Your task to perform on an android device: Search for "jbl flip 4" on ebay.com, select the first entry, add it to the cart, then select checkout. Image 0: 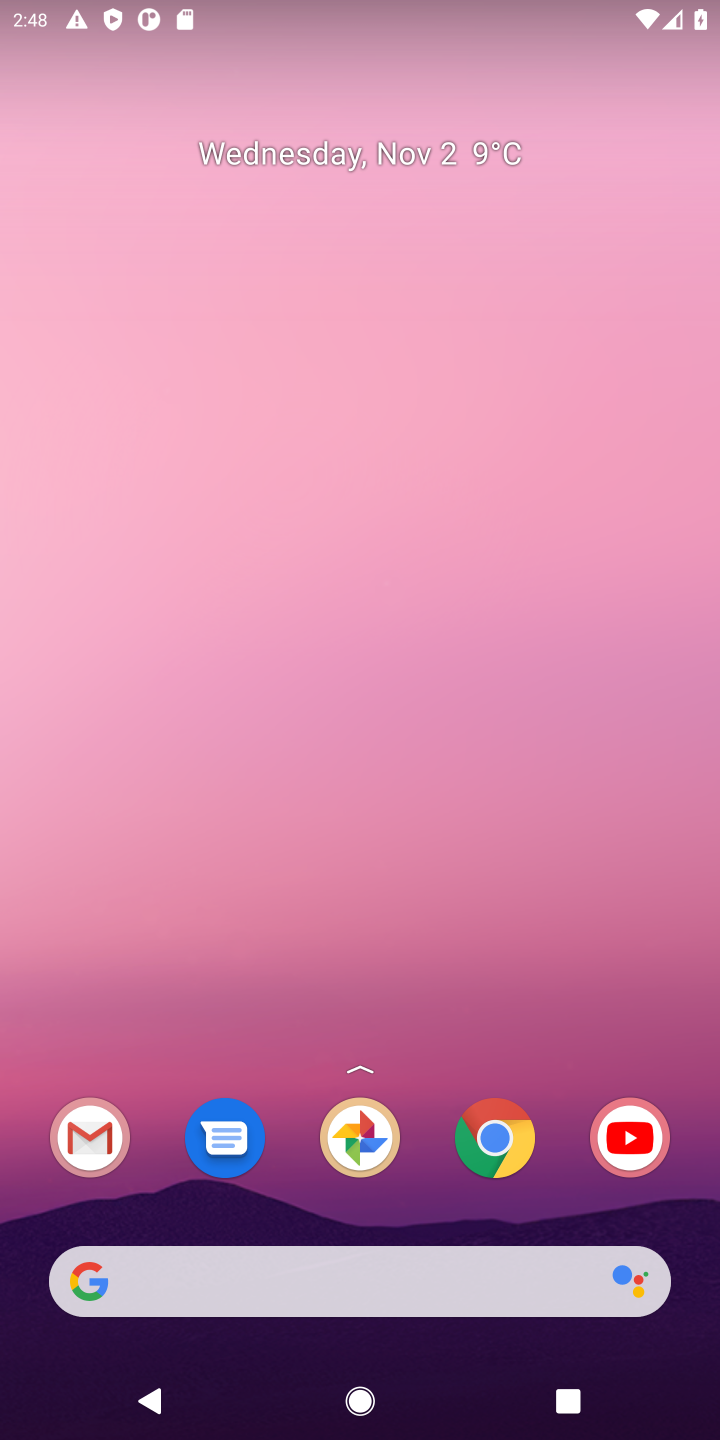
Step 0: click (499, 1111)
Your task to perform on an android device: Search for "jbl flip 4" on ebay.com, select the first entry, add it to the cart, then select checkout. Image 1: 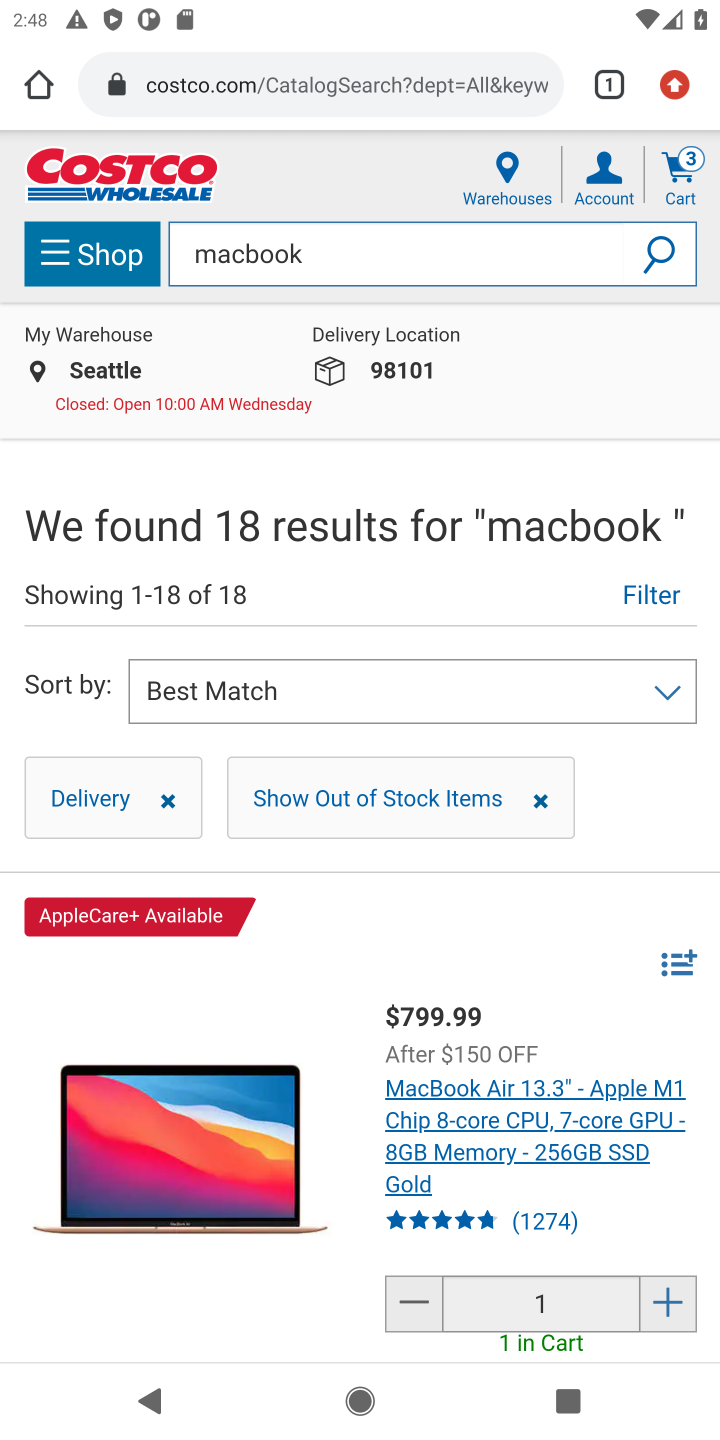
Step 1: click (215, 74)
Your task to perform on an android device: Search for "jbl flip 4" on ebay.com, select the first entry, add it to the cart, then select checkout. Image 2: 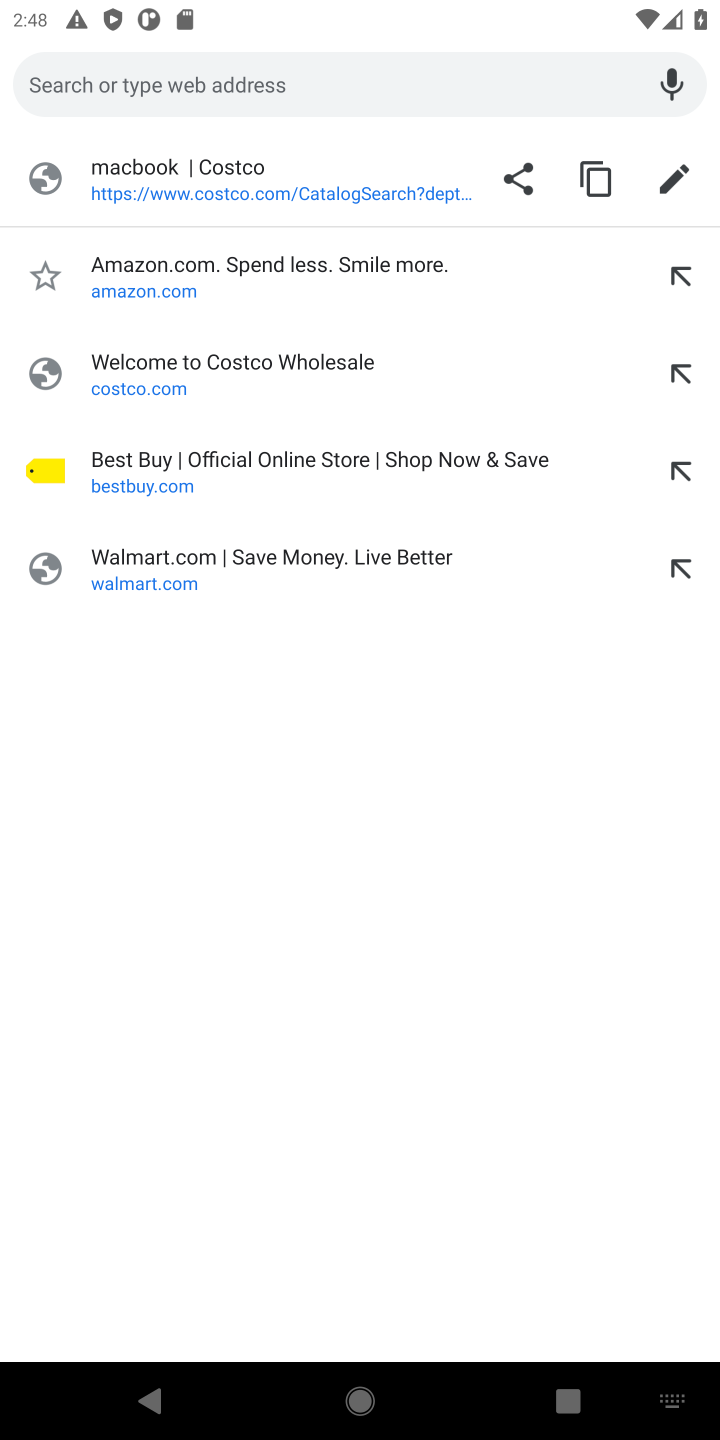
Step 2: type "ebay"
Your task to perform on an android device: Search for "jbl flip 4" on ebay.com, select the first entry, add it to the cart, then select checkout. Image 3: 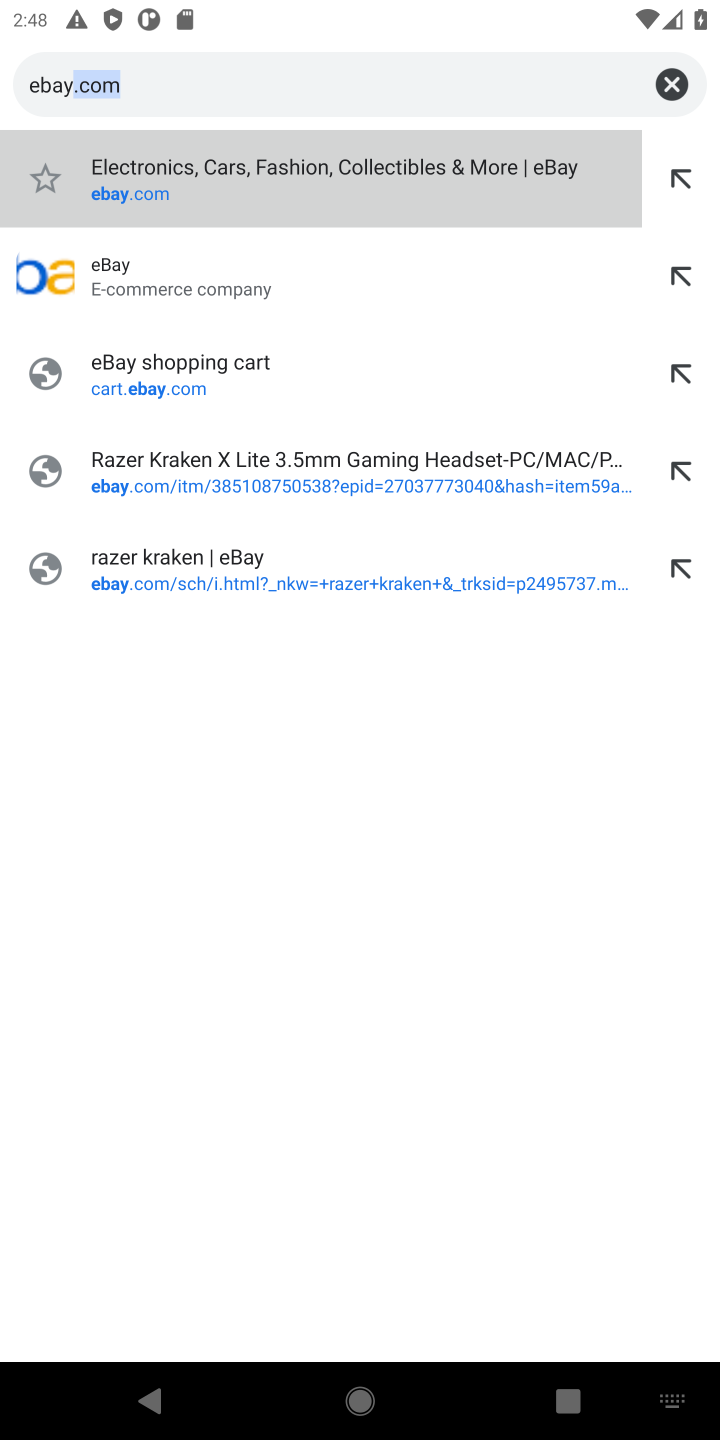
Step 3: click (284, 260)
Your task to perform on an android device: Search for "jbl flip 4" on ebay.com, select the first entry, add it to the cart, then select checkout. Image 4: 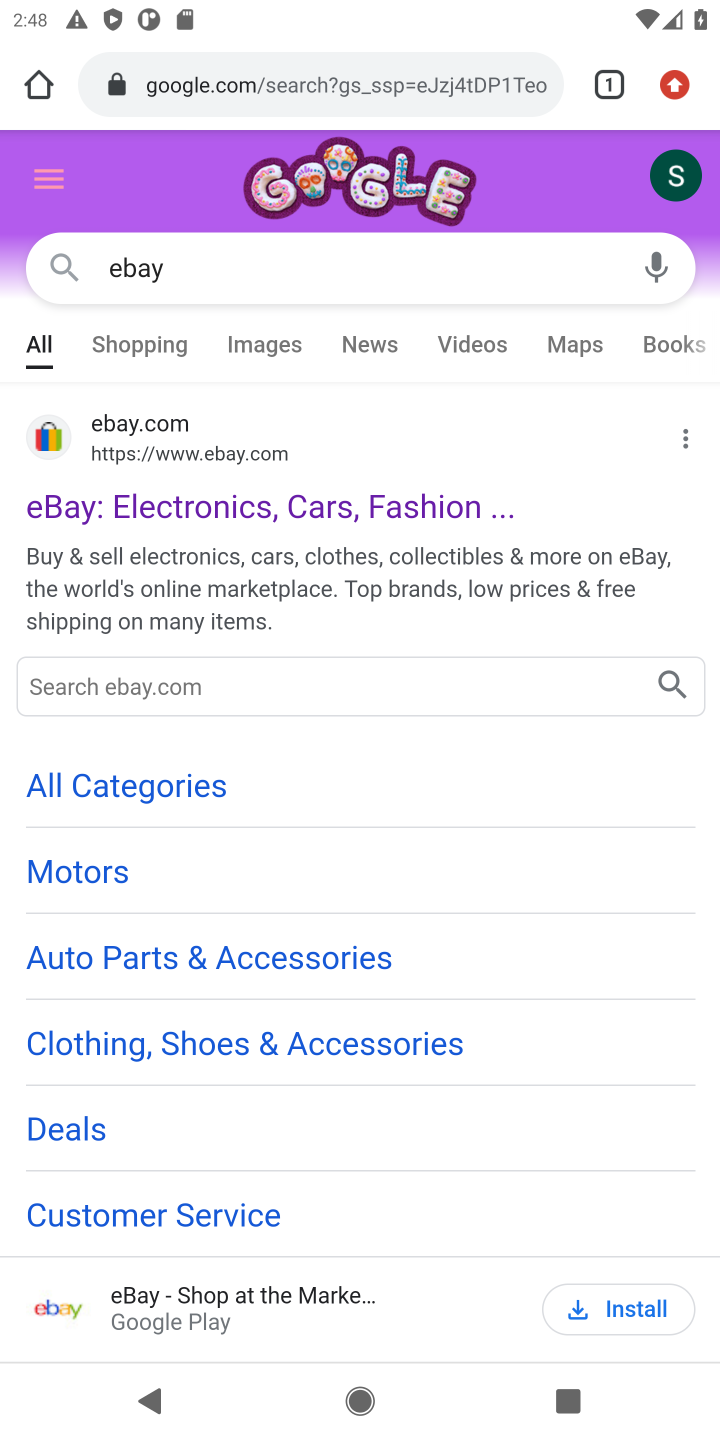
Step 4: click (101, 501)
Your task to perform on an android device: Search for "jbl flip 4" on ebay.com, select the first entry, add it to the cart, then select checkout. Image 5: 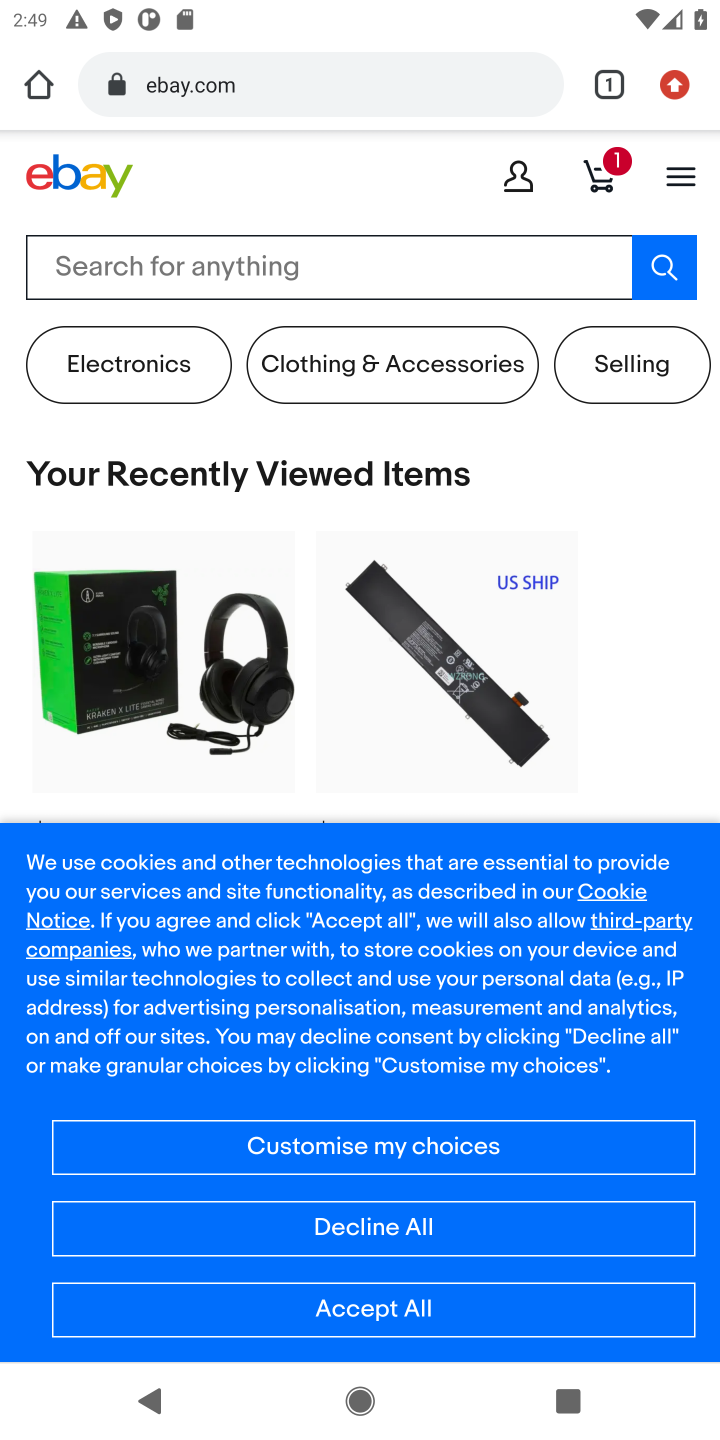
Step 5: click (395, 270)
Your task to perform on an android device: Search for "jbl flip 4" on ebay.com, select the first entry, add it to the cart, then select checkout. Image 6: 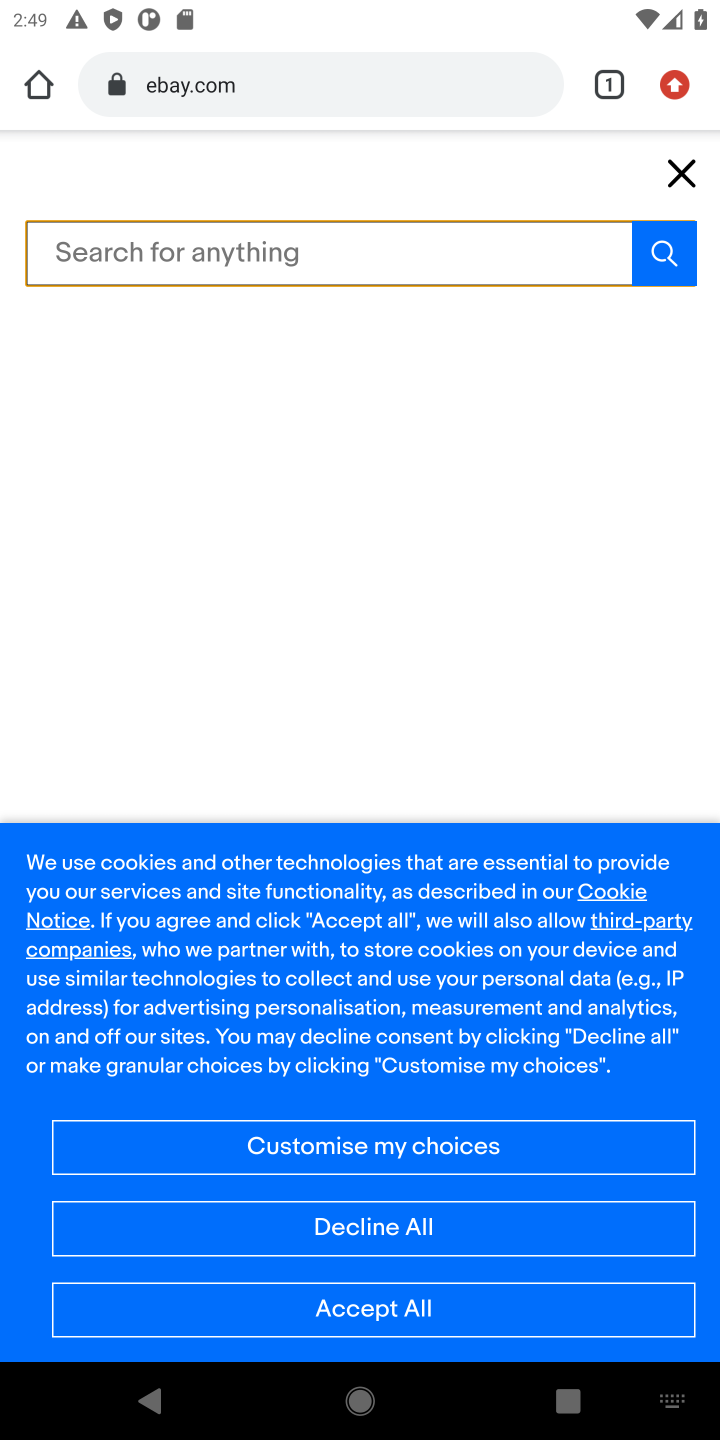
Step 6: type "jbl flip 4"
Your task to perform on an android device: Search for "jbl flip 4" on ebay.com, select the first entry, add it to the cart, then select checkout. Image 7: 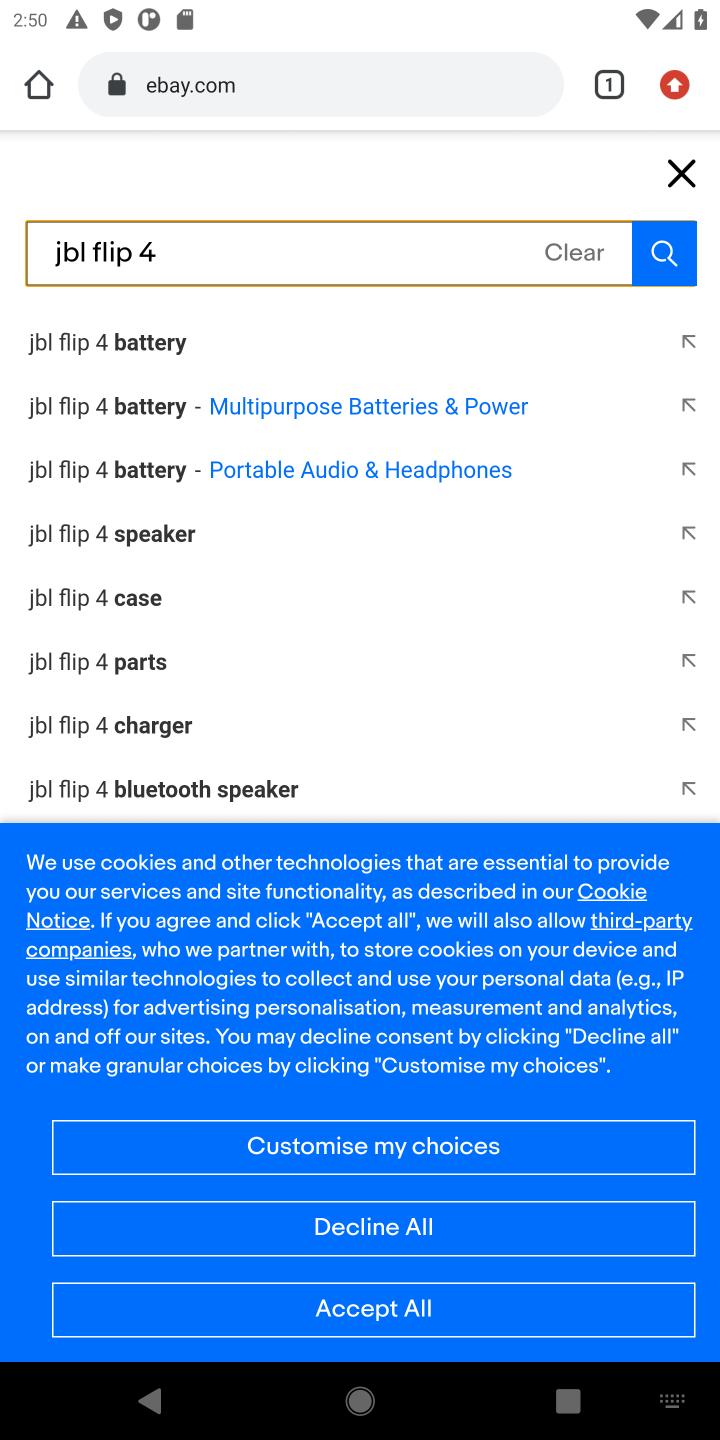
Step 7: click (645, 247)
Your task to perform on an android device: Search for "jbl flip 4" on ebay.com, select the first entry, add it to the cart, then select checkout. Image 8: 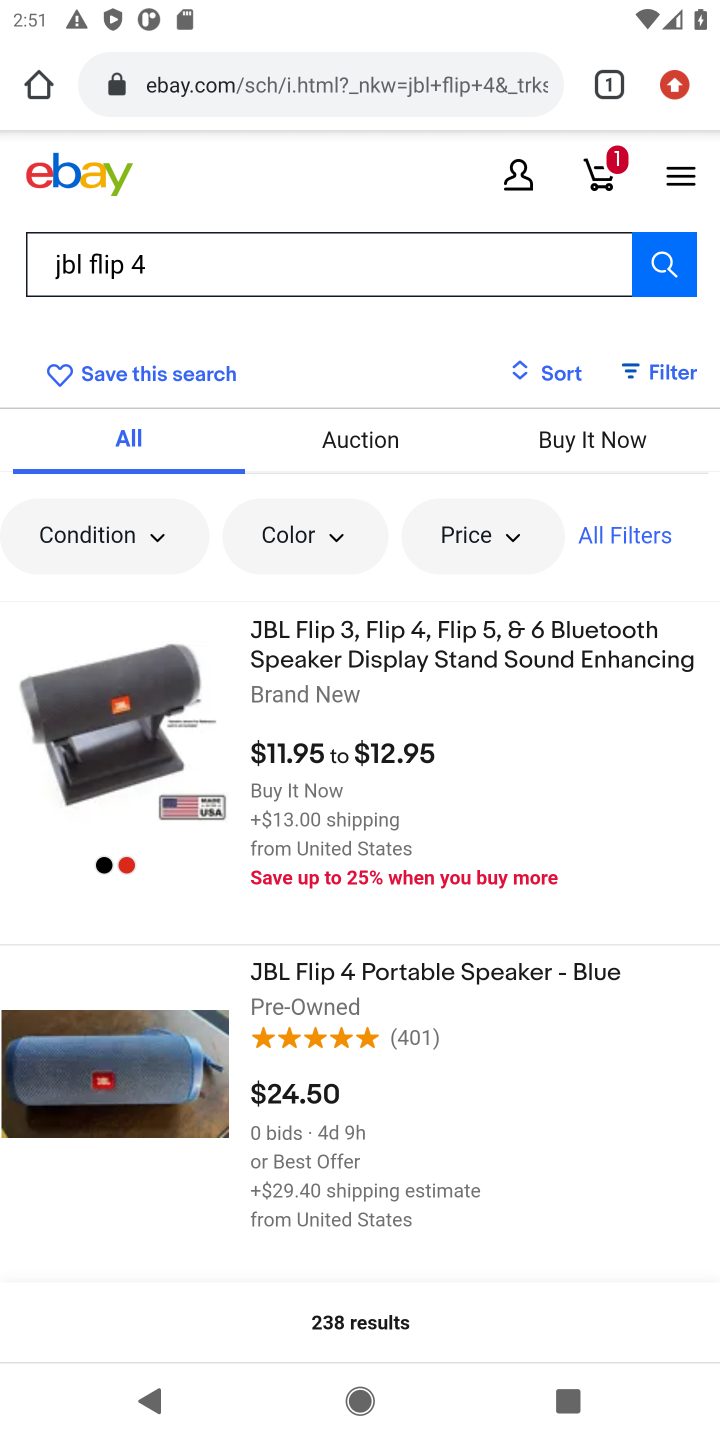
Step 8: click (680, 280)
Your task to perform on an android device: Search for "jbl flip 4" on ebay.com, select the first entry, add it to the cart, then select checkout. Image 9: 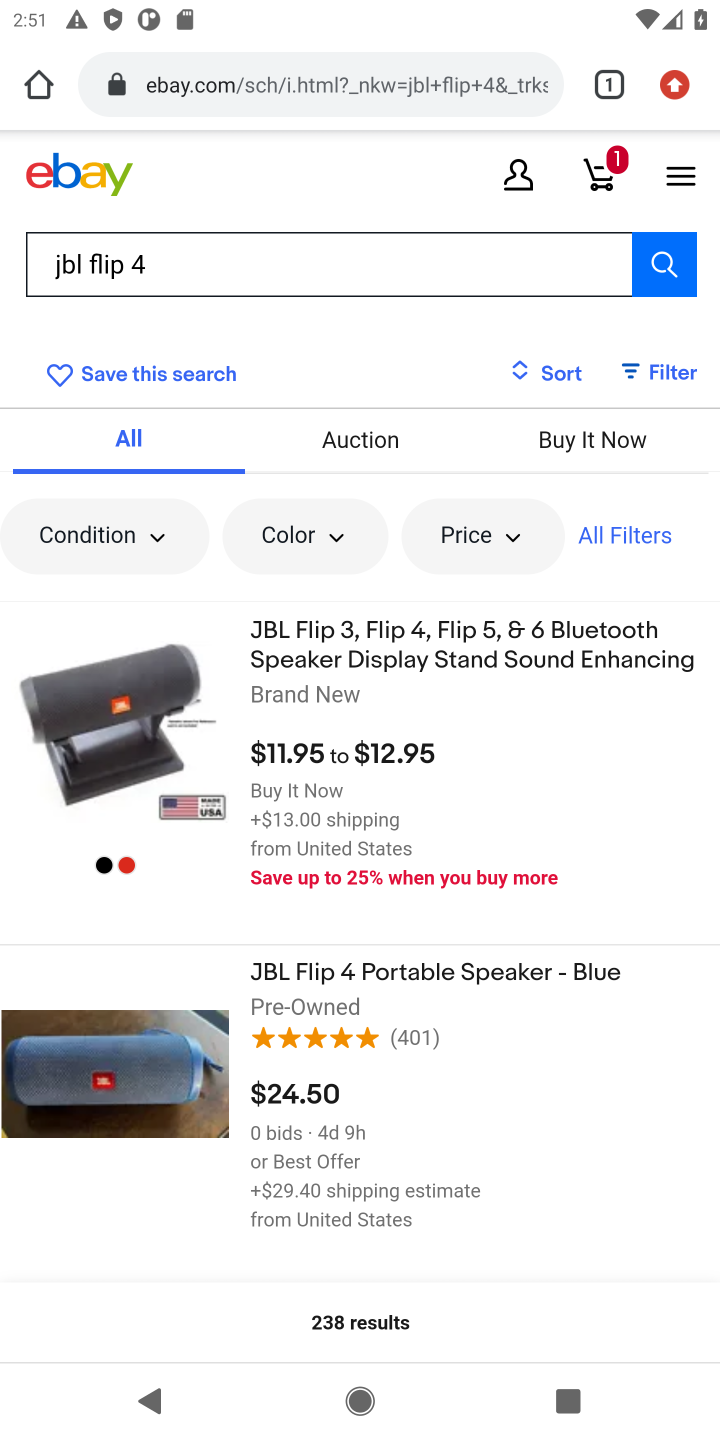
Step 9: click (367, 984)
Your task to perform on an android device: Search for "jbl flip 4" on ebay.com, select the first entry, add it to the cart, then select checkout. Image 10: 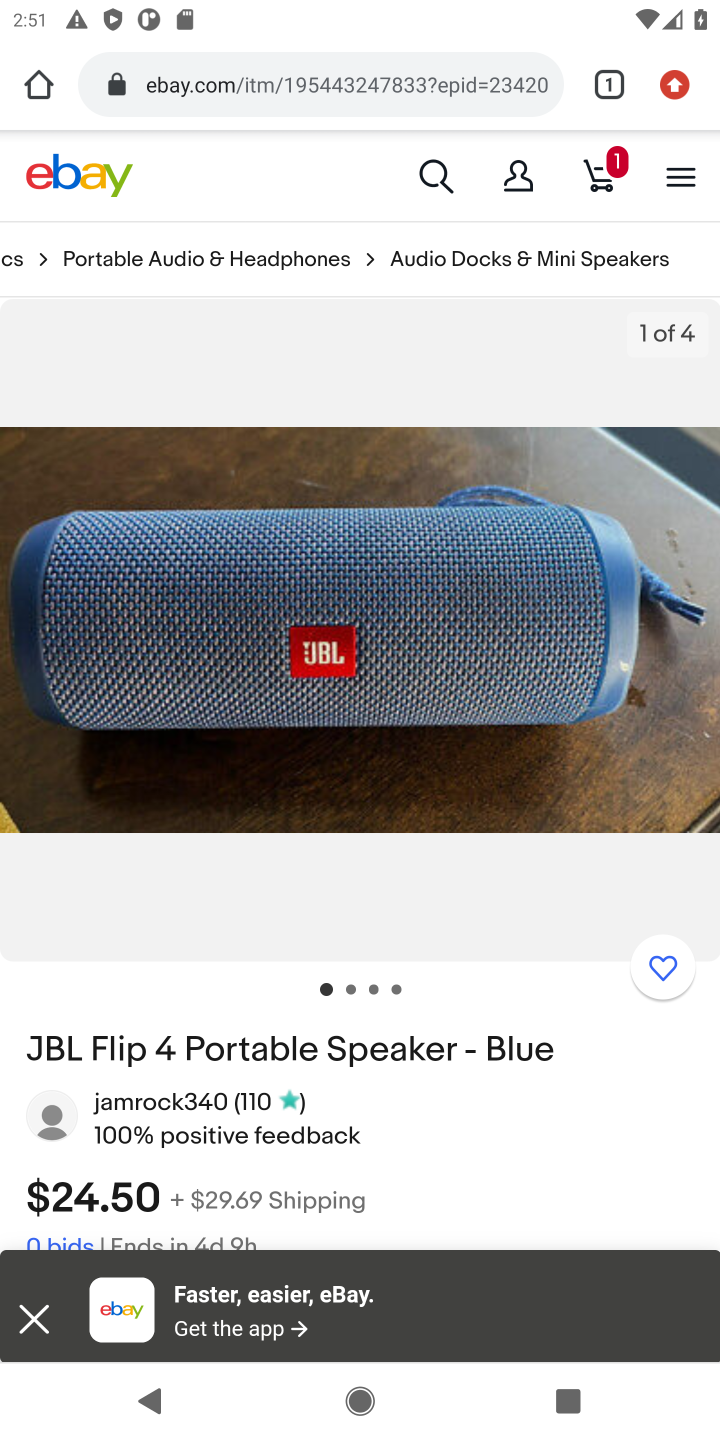
Step 10: task complete